Your task to perform on an android device: Toggle the flashlight Image 0: 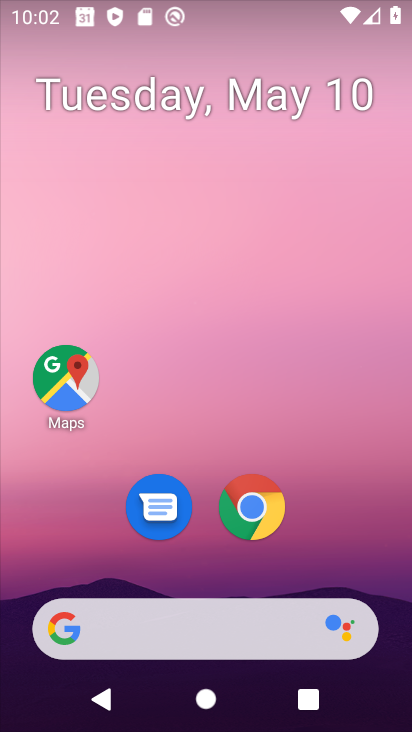
Step 0: drag from (286, 0) to (286, 337)
Your task to perform on an android device: Toggle the flashlight Image 1: 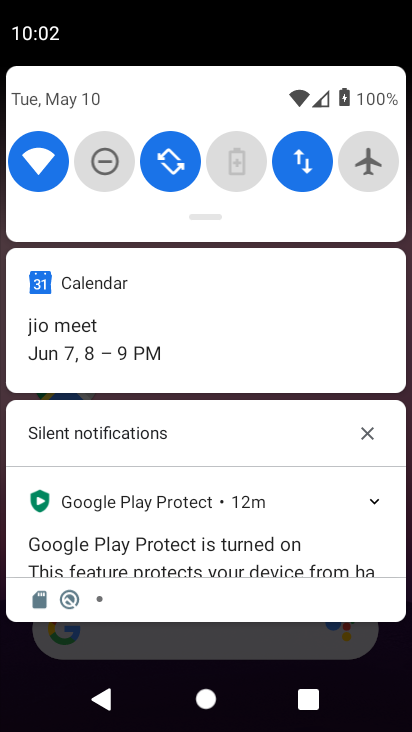
Step 1: task complete